Your task to perform on an android device: open app "Truecaller" (install if not already installed) Image 0: 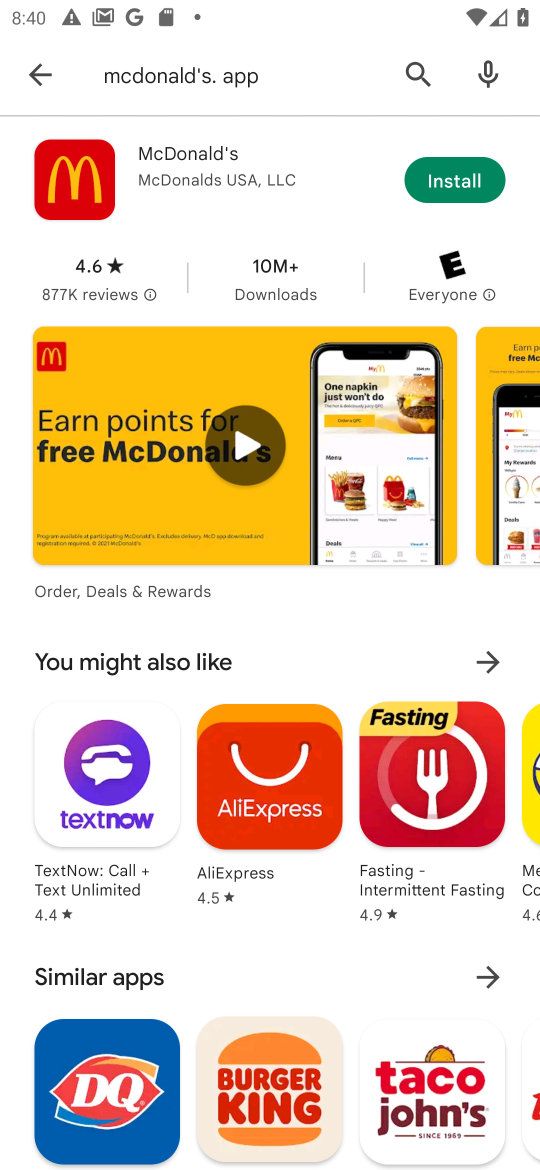
Step 0: press home button
Your task to perform on an android device: open app "Truecaller" (install if not already installed) Image 1: 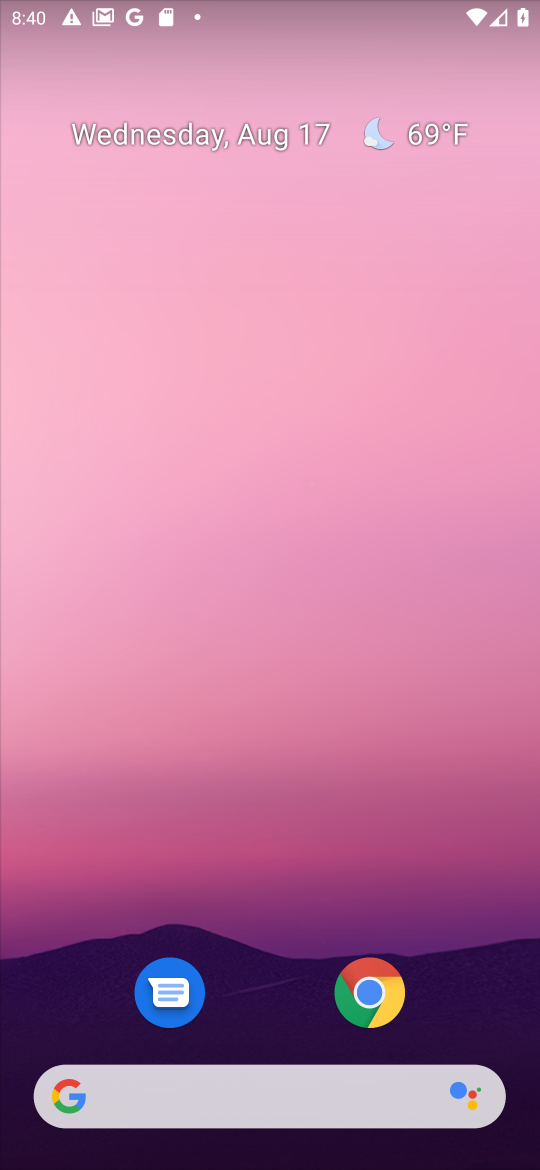
Step 1: drag from (512, 1008) to (234, 2)
Your task to perform on an android device: open app "Truecaller" (install if not already installed) Image 2: 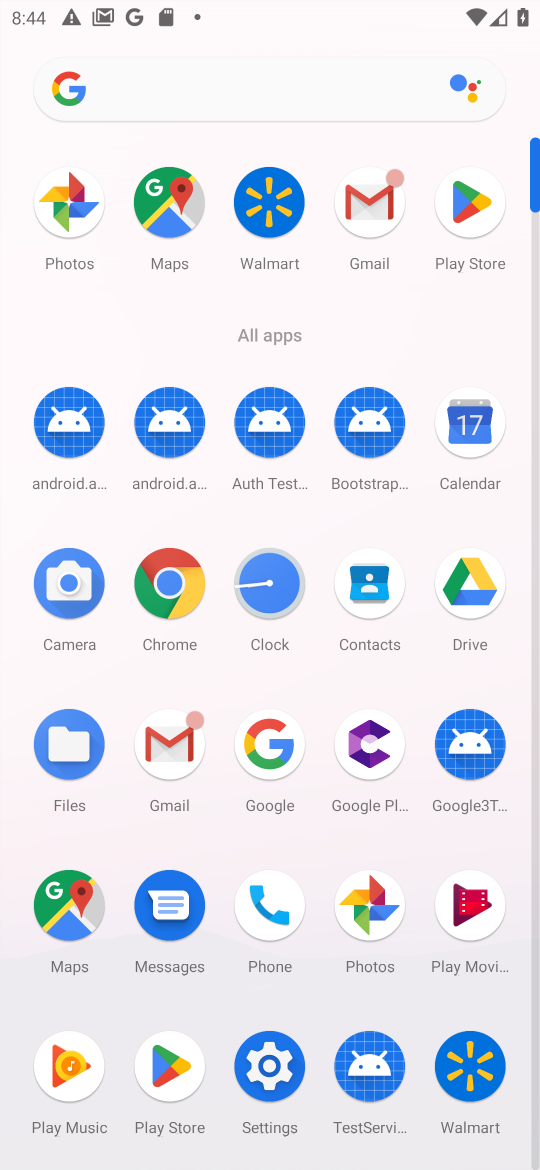
Step 2: click (160, 1063)
Your task to perform on an android device: open app "Truecaller" (install if not already installed) Image 3: 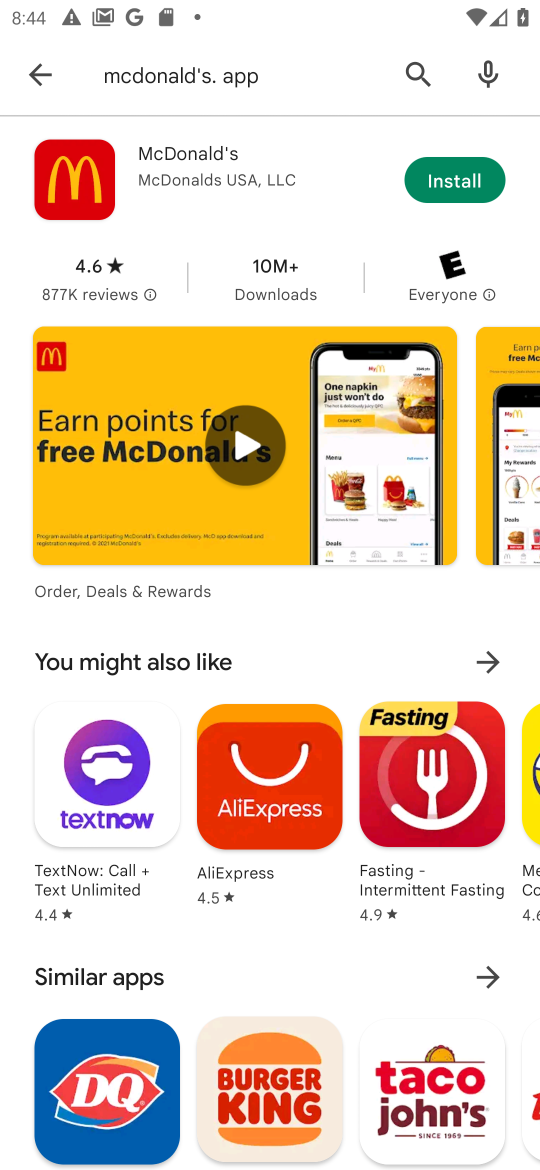
Step 3: press back button
Your task to perform on an android device: open app "Truecaller" (install if not already installed) Image 4: 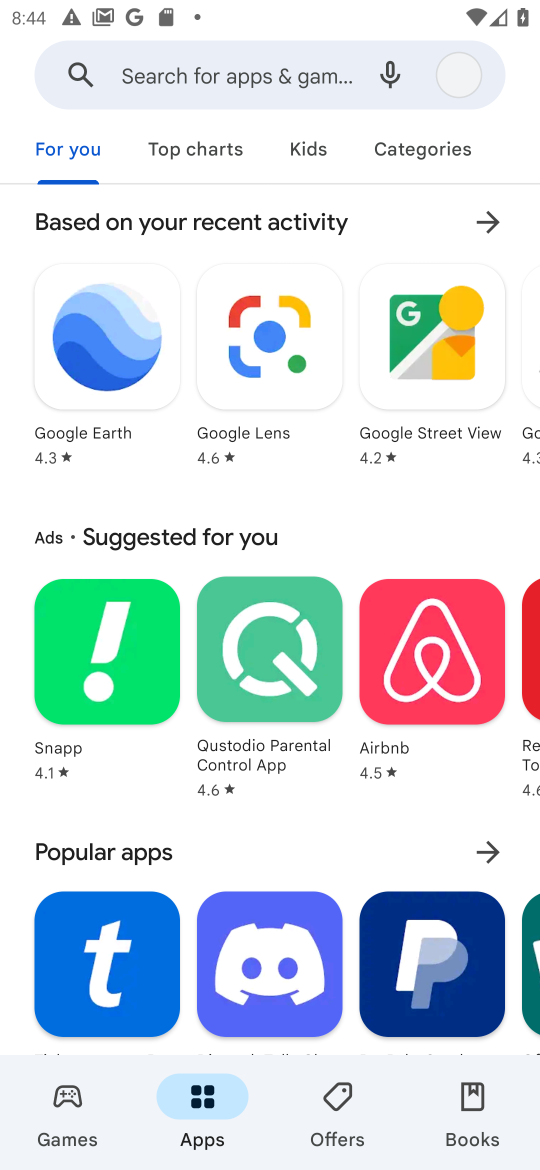
Step 4: click (172, 76)
Your task to perform on an android device: open app "Truecaller" (install if not already installed) Image 5: 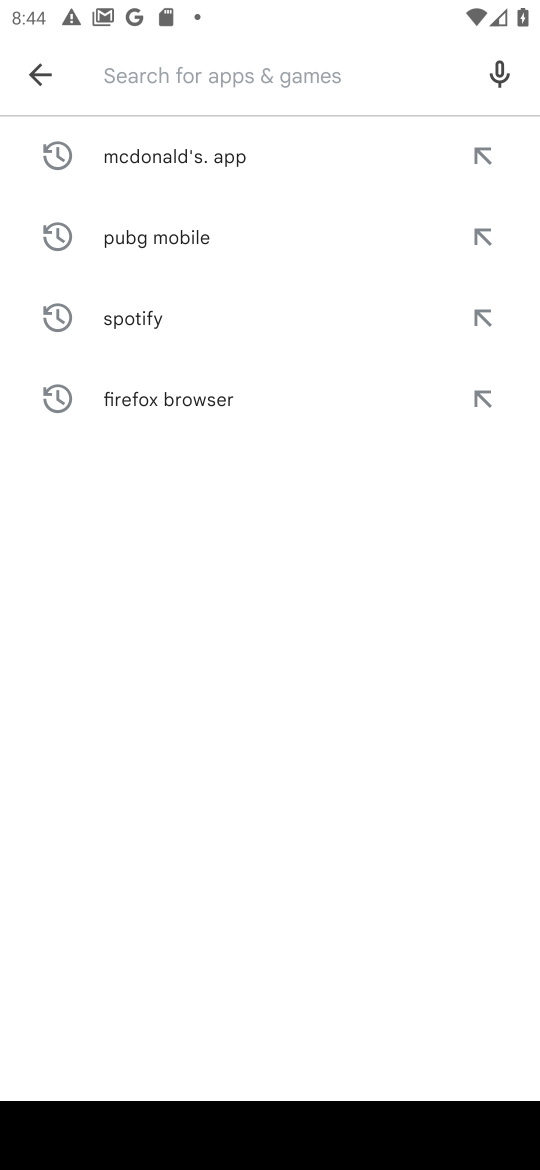
Step 5: type "Truecaller"
Your task to perform on an android device: open app "Truecaller" (install if not already installed) Image 6: 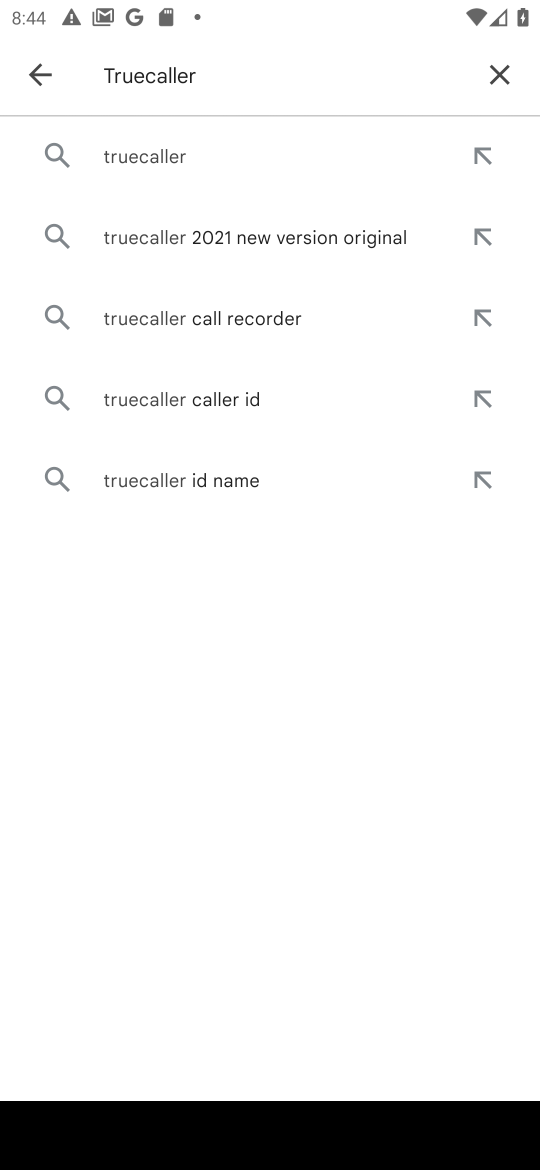
Step 6: click (238, 165)
Your task to perform on an android device: open app "Truecaller" (install if not already installed) Image 7: 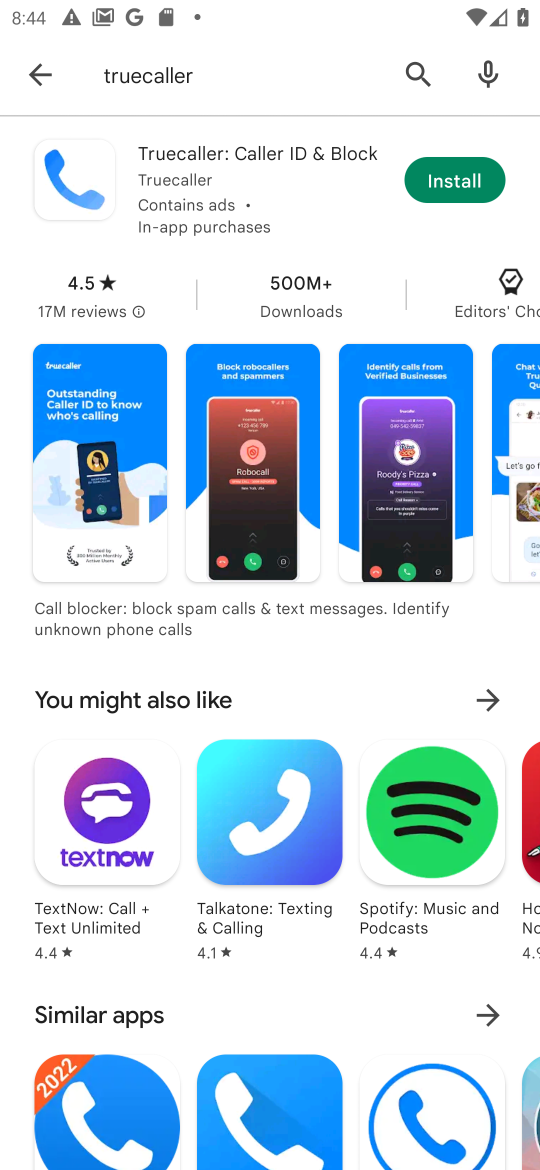
Step 7: task complete